Your task to perform on an android device: star an email in the gmail app Image 0: 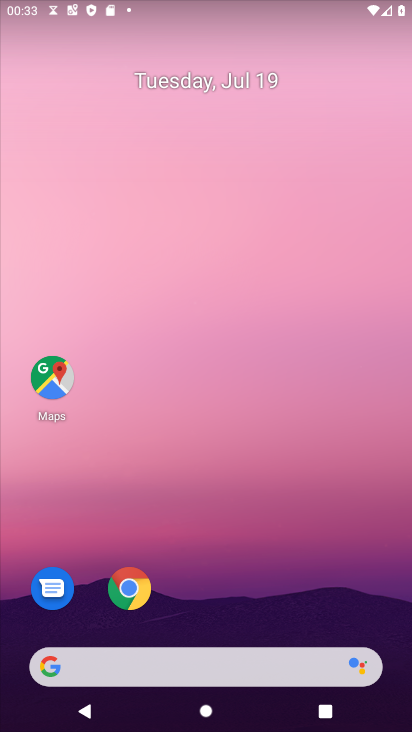
Step 0: drag from (197, 674) to (158, 260)
Your task to perform on an android device: star an email in the gmail app Image 1: 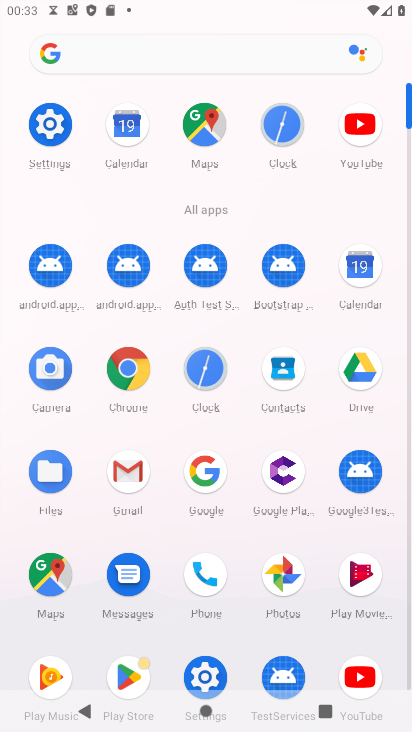
Step 1: click (135, 469)
Your task to perform on an android device: star an email in the gmail app Image 2: 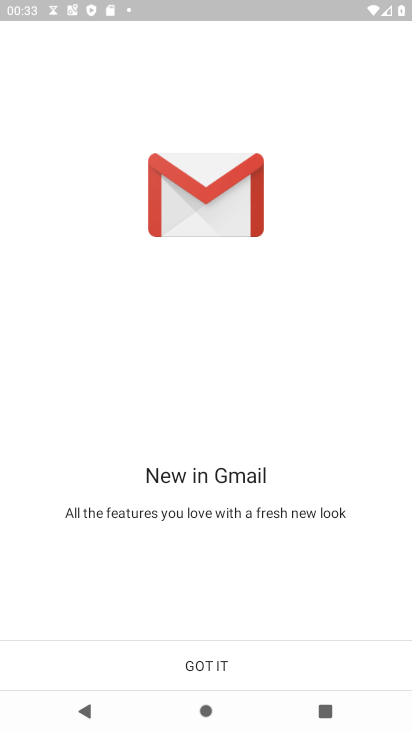
Step 2: click (194, 663)
Your task to perform on an android device: star an email in the gmail app Image 3: 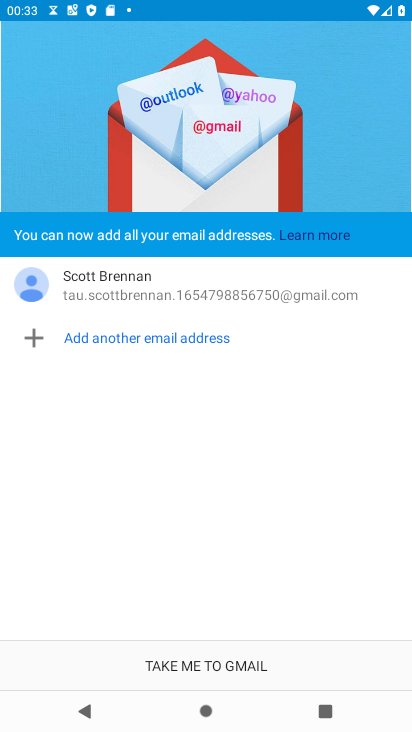
Step 3: click (204, 661)
Your task to perform on an android device: star an email in the gmail app Image 4: 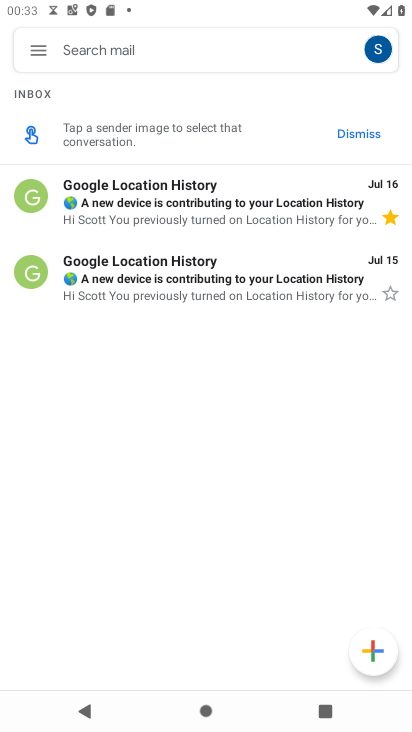
Step 4: click (159, 194)
Your task to perform on an android device: star an email in the gmail app Image 5: 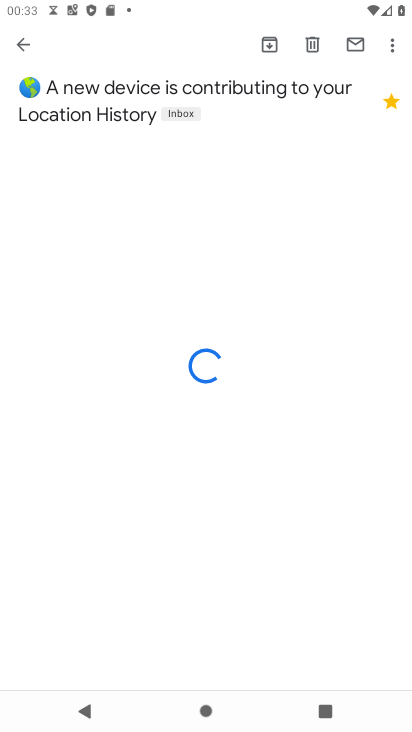
Step 5: click (391, 100)
Your task to perform on an android device: star an email in the gmail app Image 6: 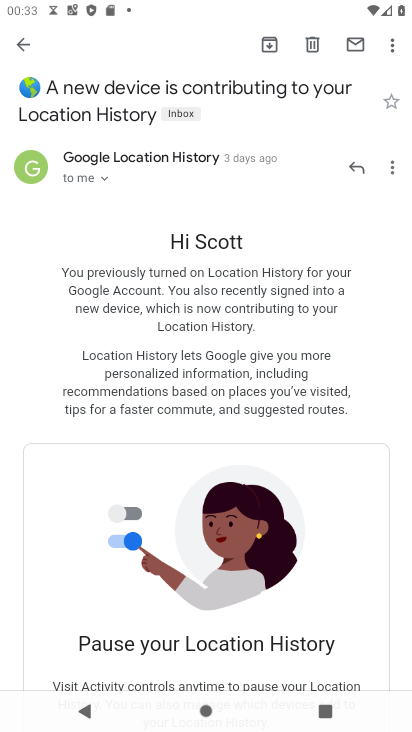
Step 6: click (394, 102)
Your task to perform on an android device: star an email in the gmail app Image 7: 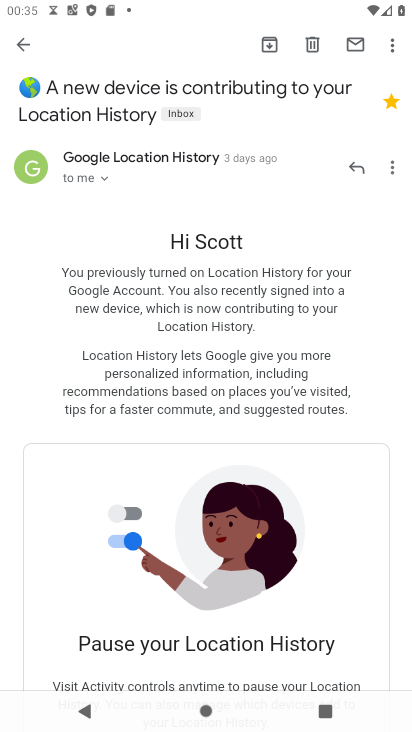
Step 7: task complete